Your task to perform on an android device: Open Android settings Image 0: 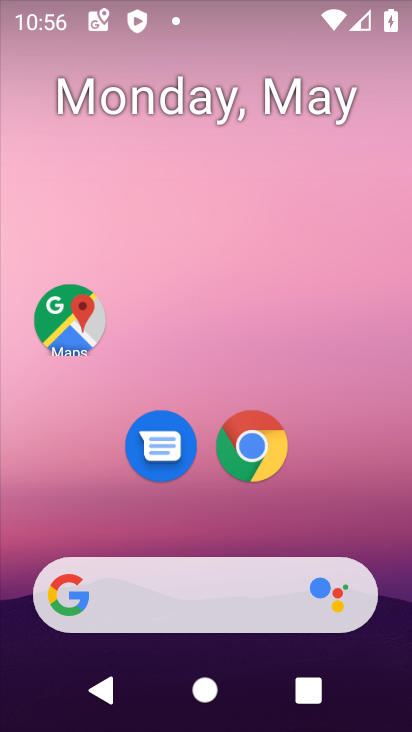
Step 0: drag from (361, 520) to (345, 75)
Your task to perform on an android device: Open Android settings Image 1: 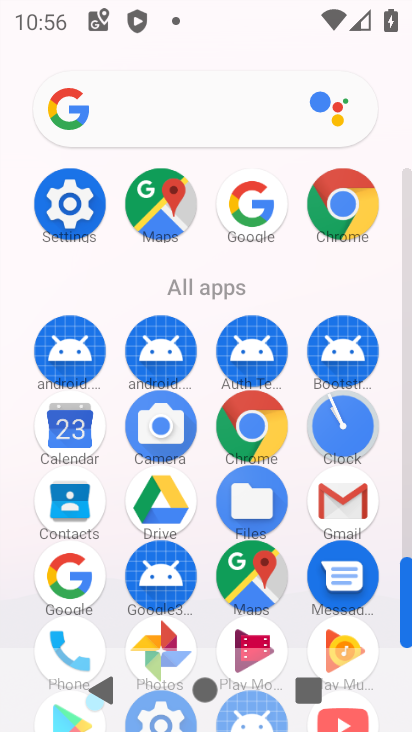
Step 1: click (88, 194)
Your task to perform on an android device: Open Android settings Image 2: 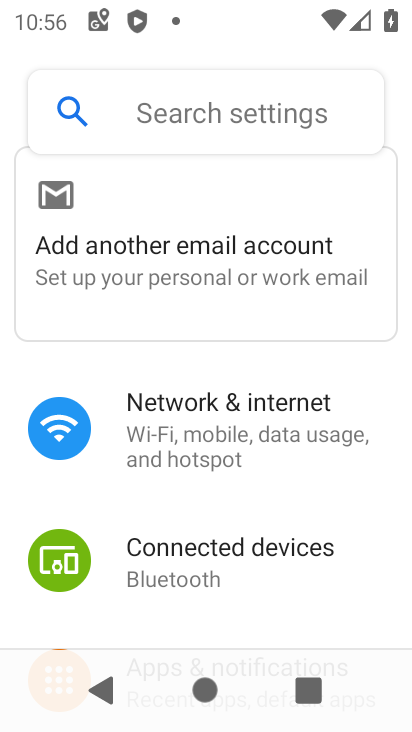
Step 2: task complete